Your task to perform on an android device: turn on improve location accuracy Image 0: 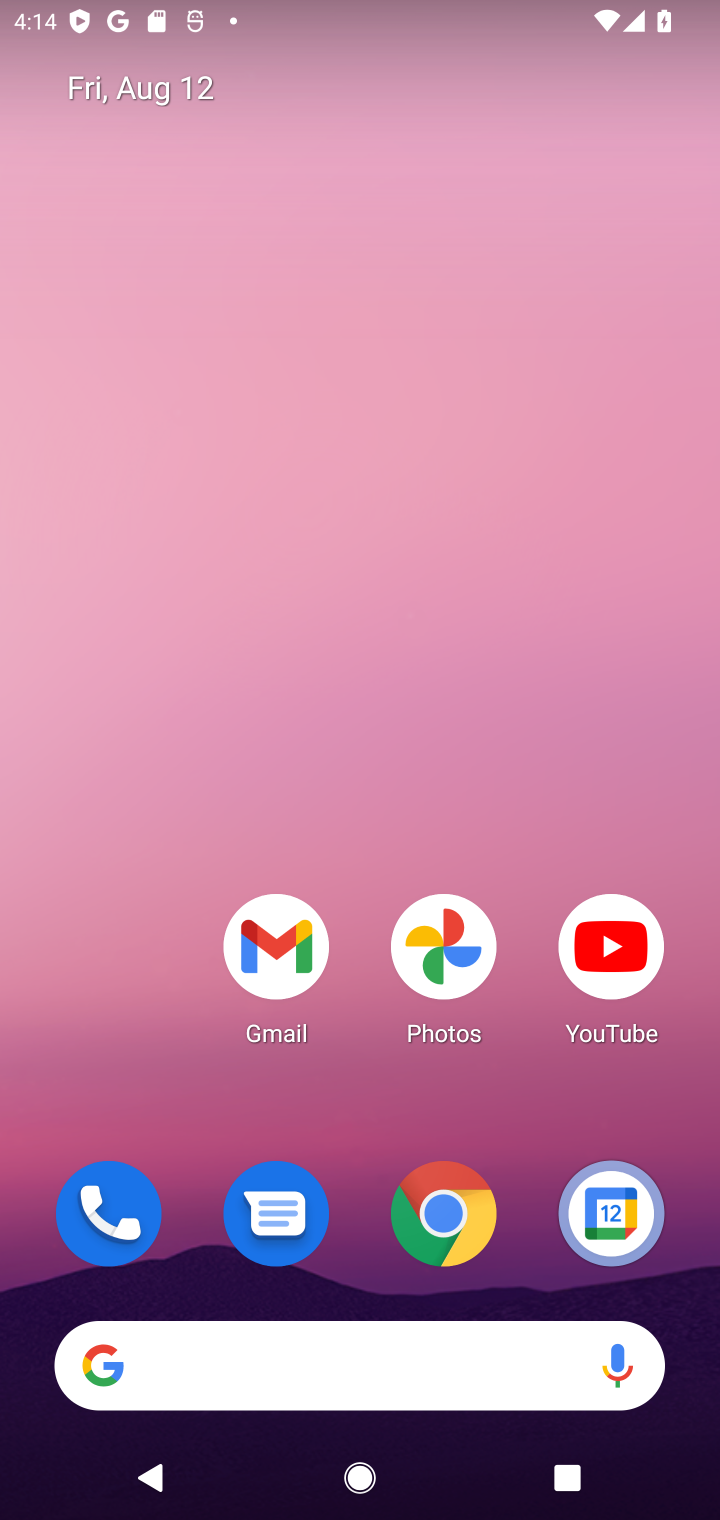
Step 0: drag from (361, 1003) to (496, 99)
Your task to perform on an android device: turn on improve location accuracy Image 1: 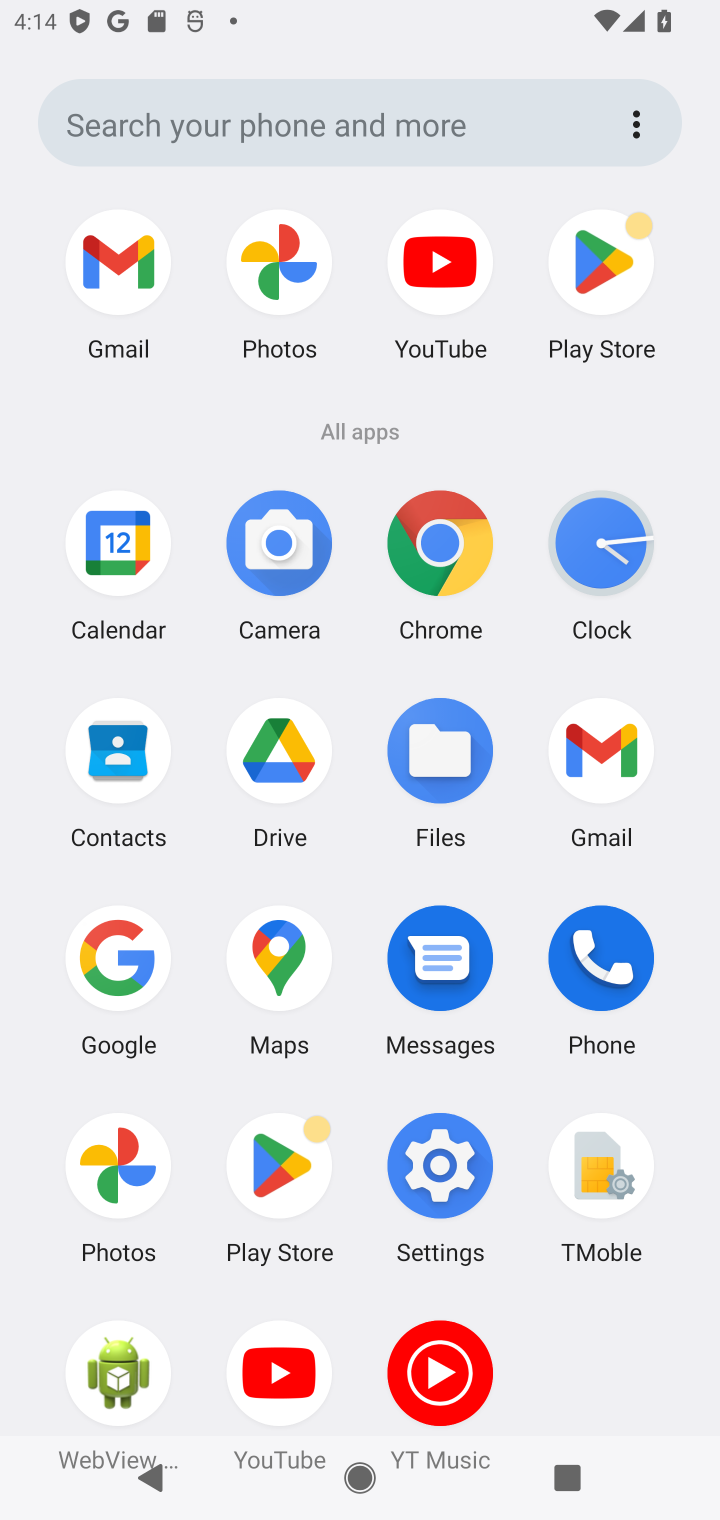
Step 1: click (457, 1172)
Your task to perform on an android device: turn on improve location accuracy Image 2: 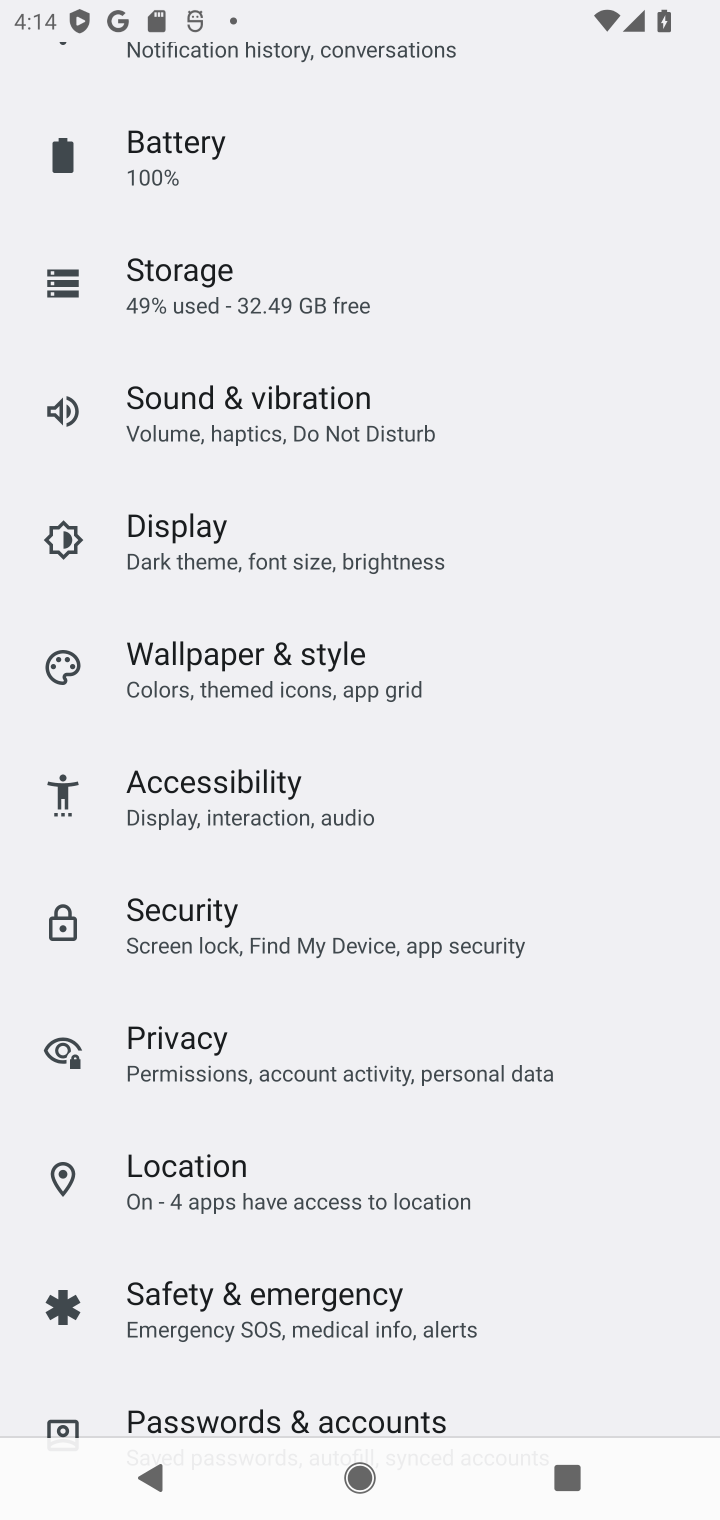
Step 2: click (219, 1177)
Your task to perform on an android device: turn on improve location accuracy Image 3: 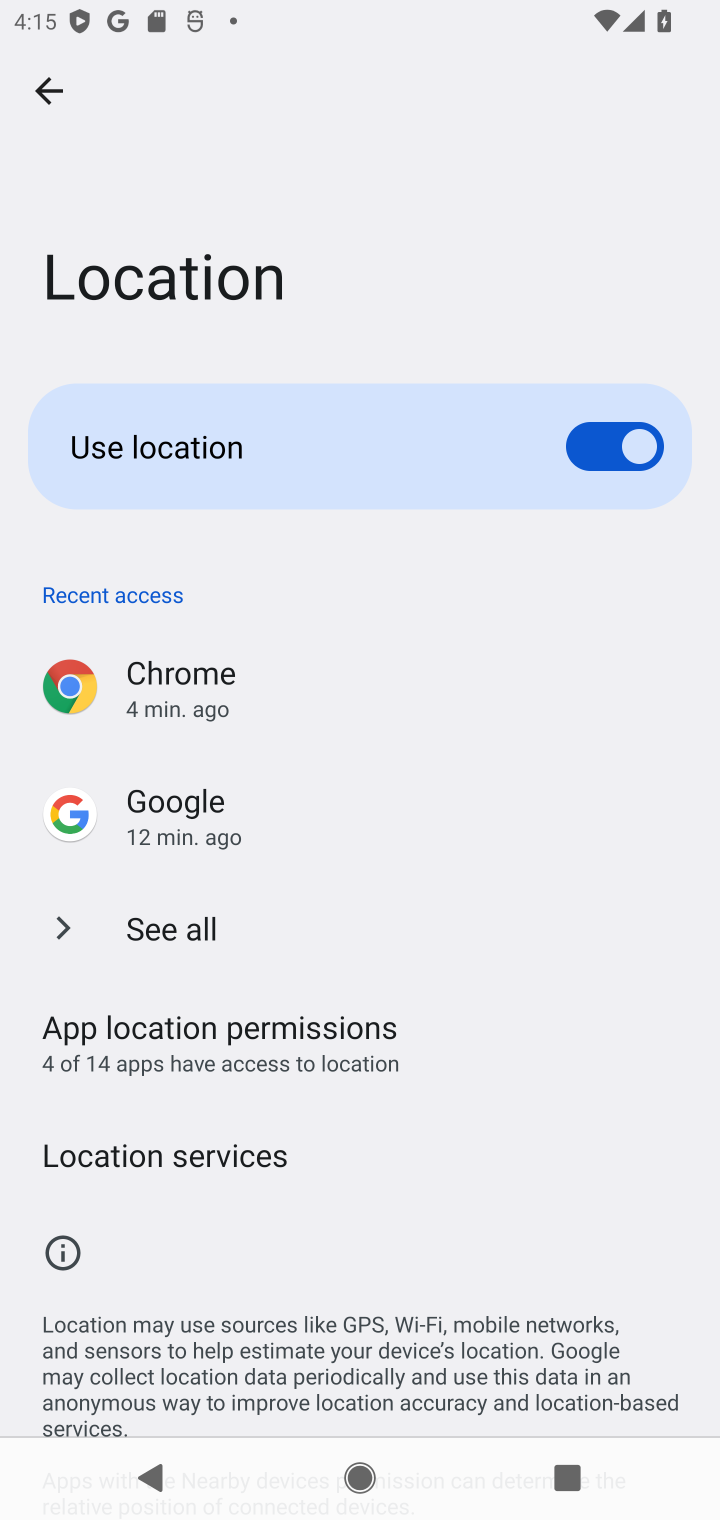
Step 3: click (231, 1147)
Your task to perform on an android device: turn on improve location accuracy Image 4: 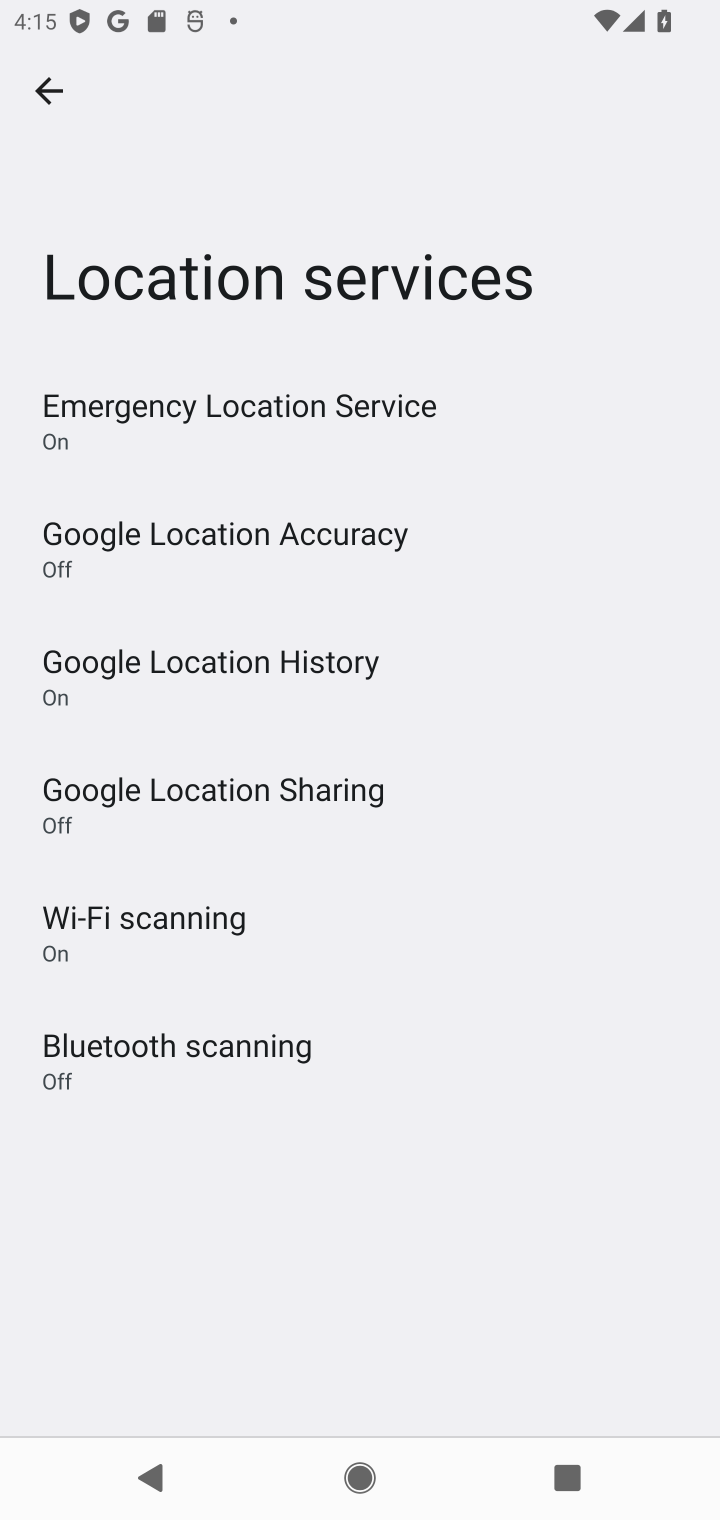
Step 4: click (364, 538)
Your task to perform on an android device: turn on improve location accuracy Image 5: 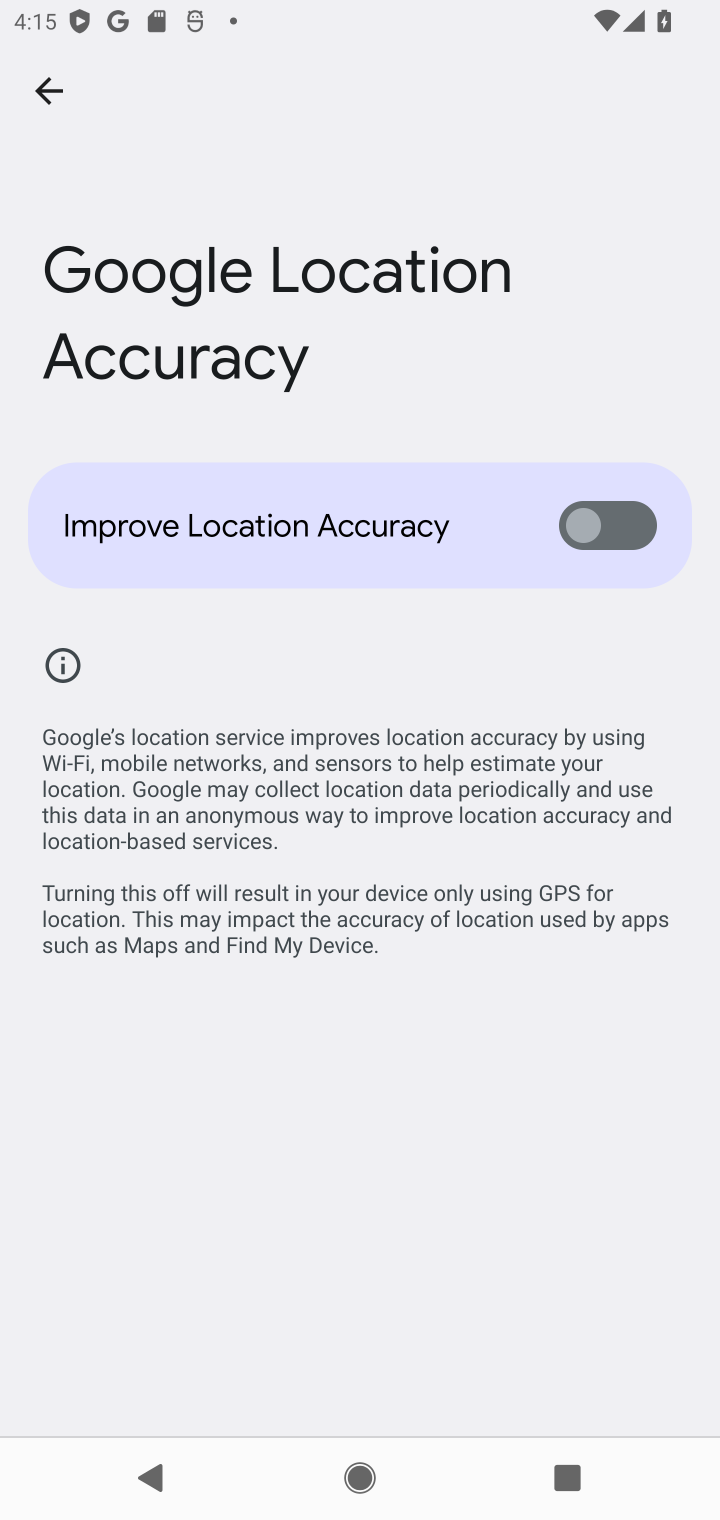
Step 5: click (572, 529)
Your task to perform on an android device: turn on improve location accuracy Image 6: 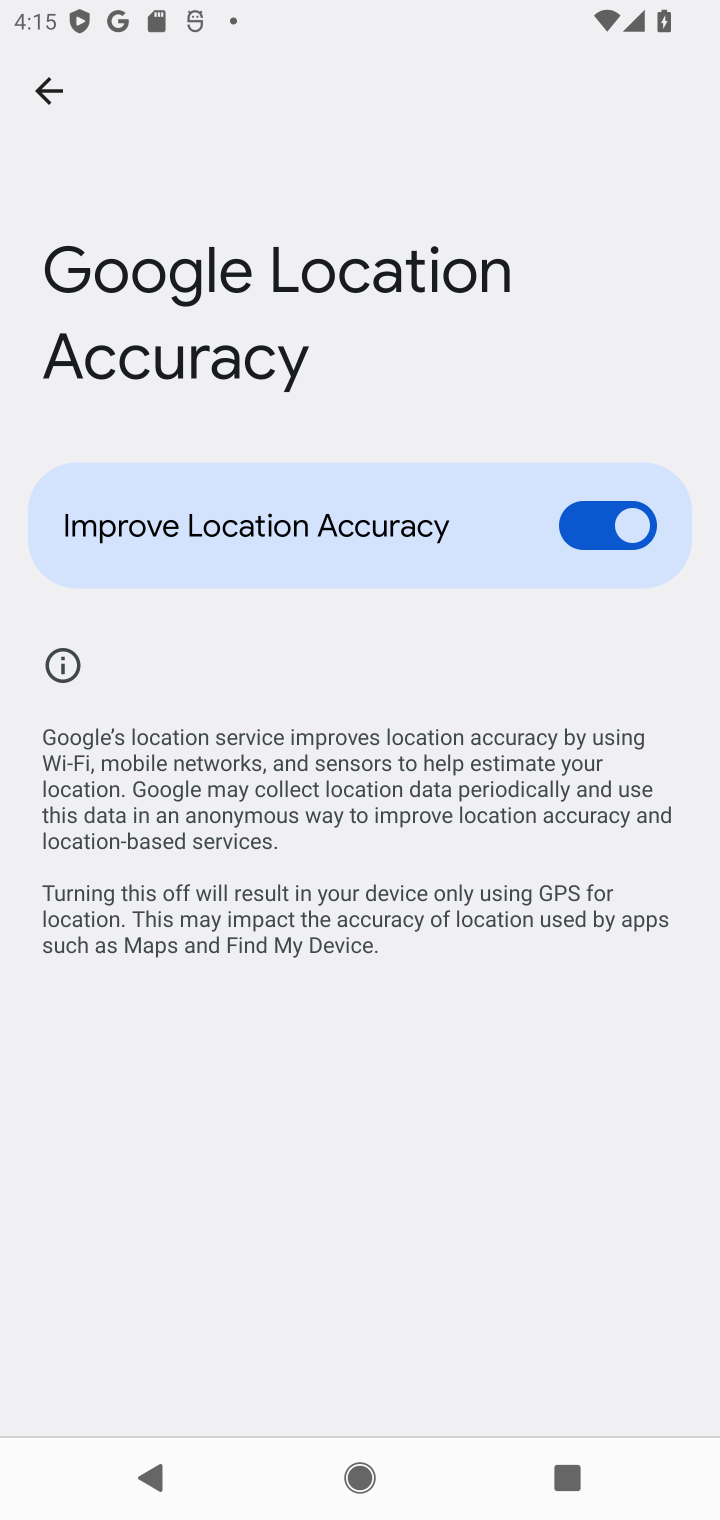
Step 6: task complete